Your task to perform on an android device: Add "usb-b" to the cart on newegg, then select checkout. Image 0: 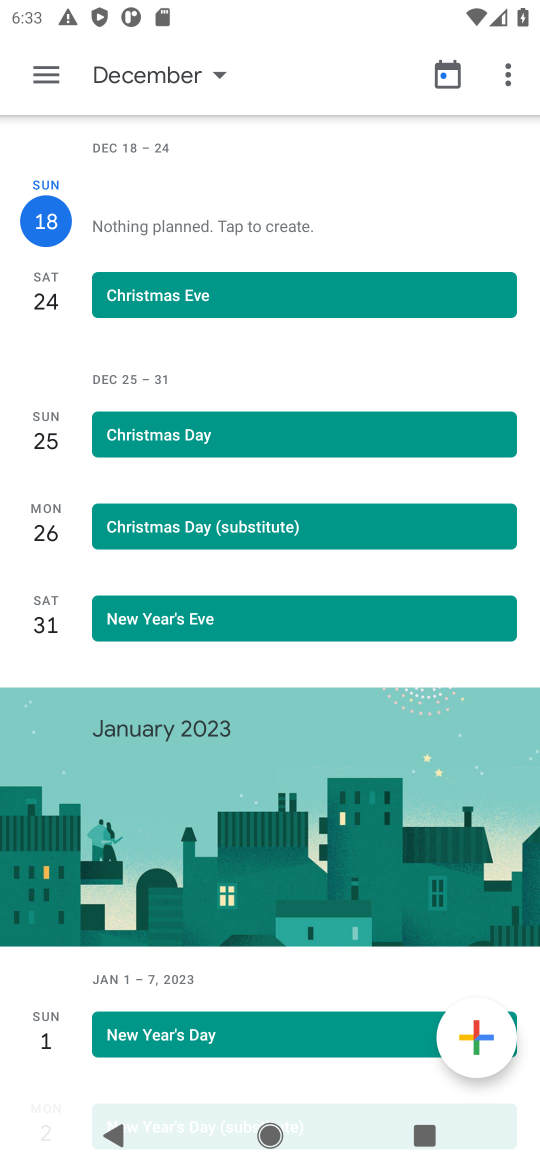
Step 0: press home button
Your task to perform on an android device: Add "usb-b" to the cart on newegg, then select checkout. Image 1: 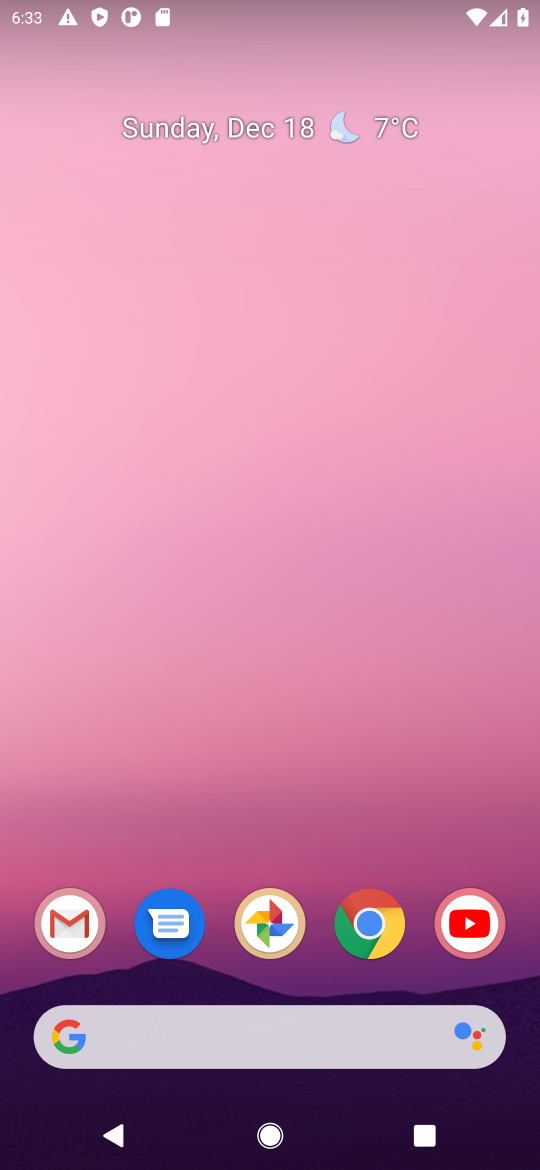
Step 1: click (106, 1031)
Your task to perform on an android device: Add "usb-b" to the cart on newegg, then select checkout. Image 2: 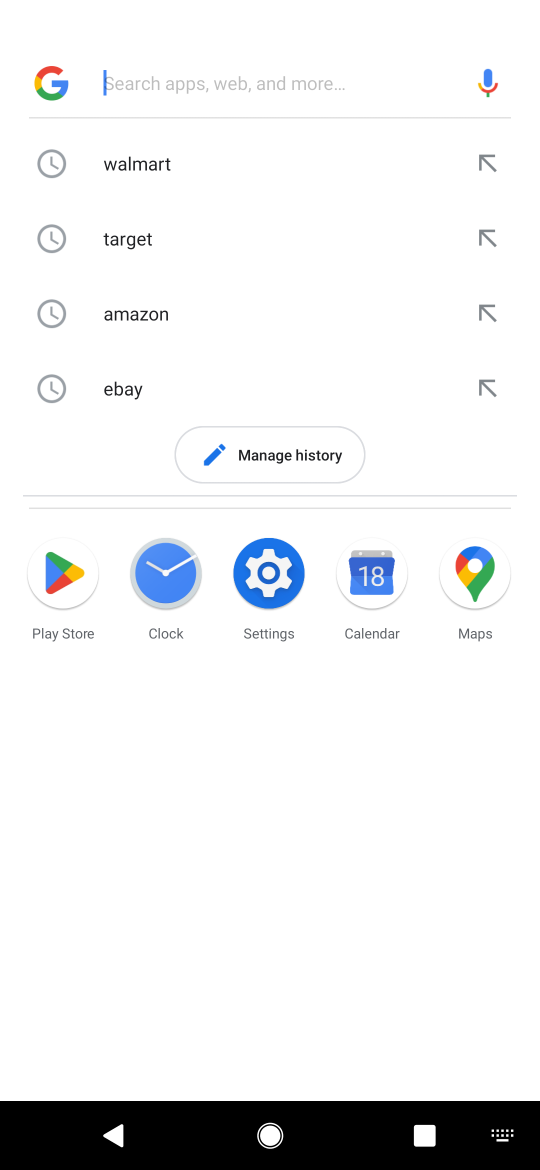
Step 2: type "newegg"
Your task to perform on an android device: Add "usb-b" to the cart on newegg, then select checkout. Image 3: 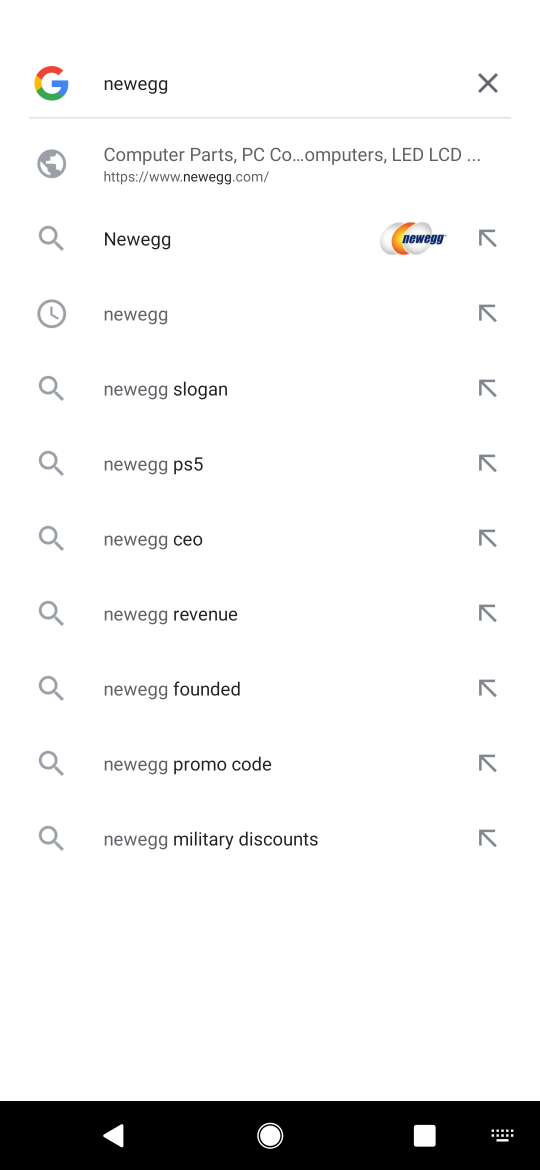
Step 3: press enter
Your task to perform on an android device: Add "usb-b" to the cart on newegg, then select checkout. Image 4: 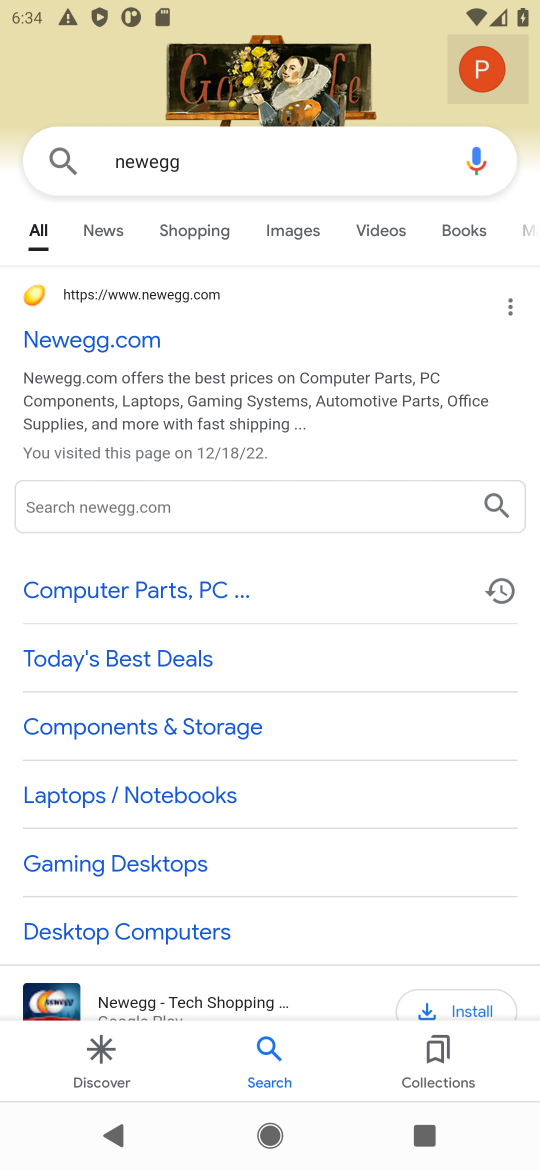
Step 4: click (88, 337)
Your task to perform on an android device: Add "usb-b" to the cart on newegg, then select checkout. Image 5: 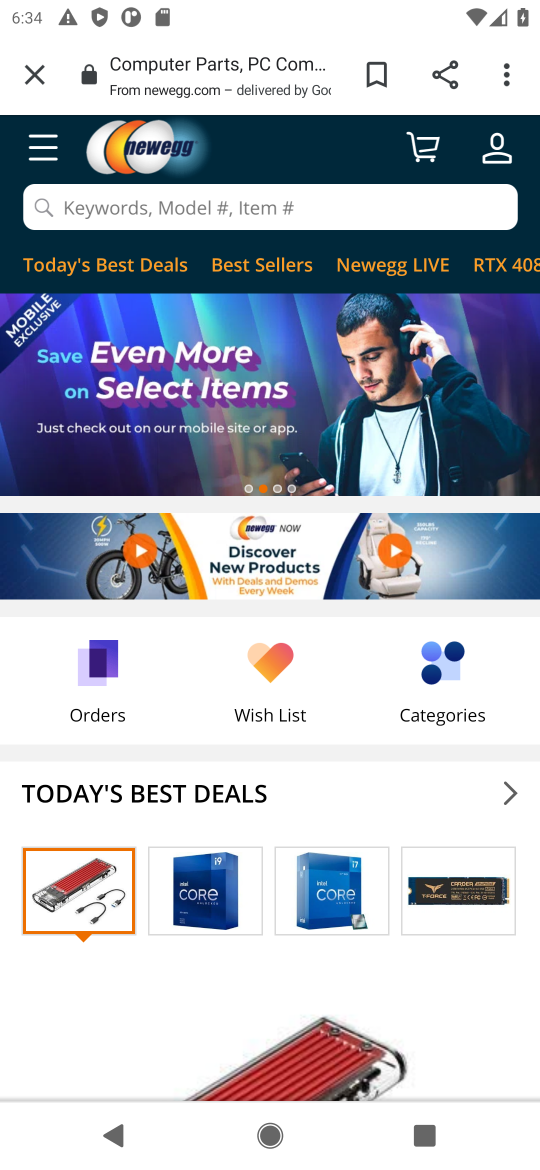
Step 5: click (110, 207)
Your task to perform on an android device: Add "usb-b" to the cart on newegg, then select checkout. Image 6: 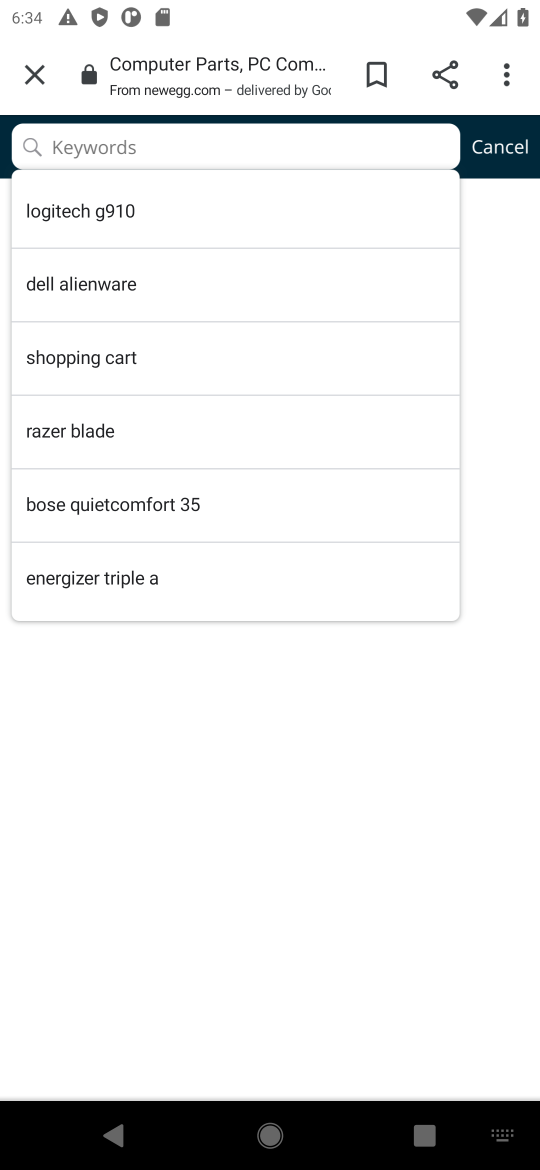
Step 6: press enter
Your task to perform on an android device: Add "usb-b" to the cart on newegg, then select checkout. Image 7: 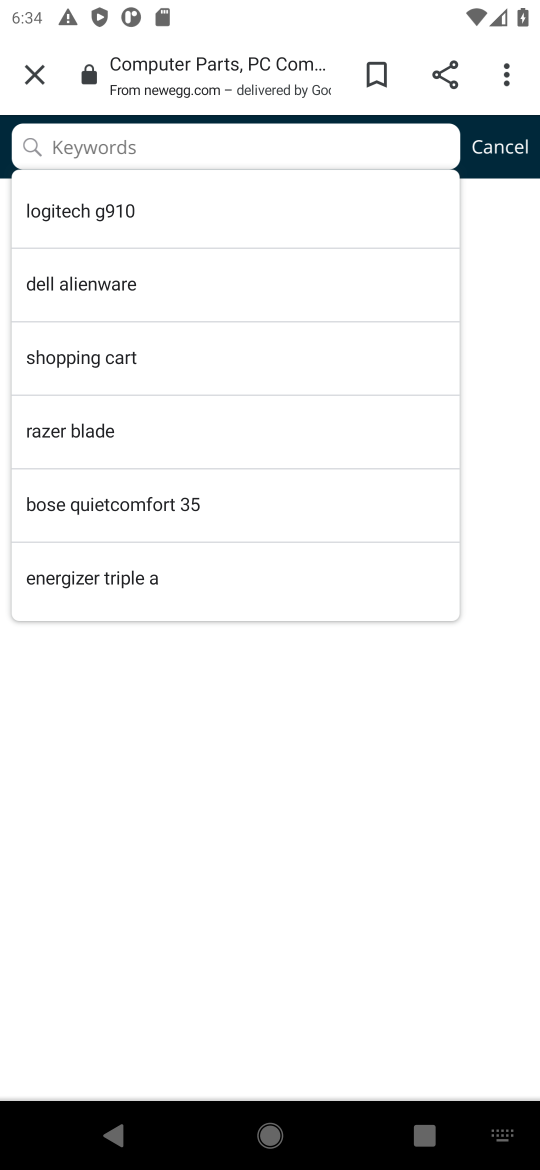
Step 7: type "usb-b"
Your task to perform on an android device: Add "usb-b" to the cart on newegg, then select checkout. Image 8: 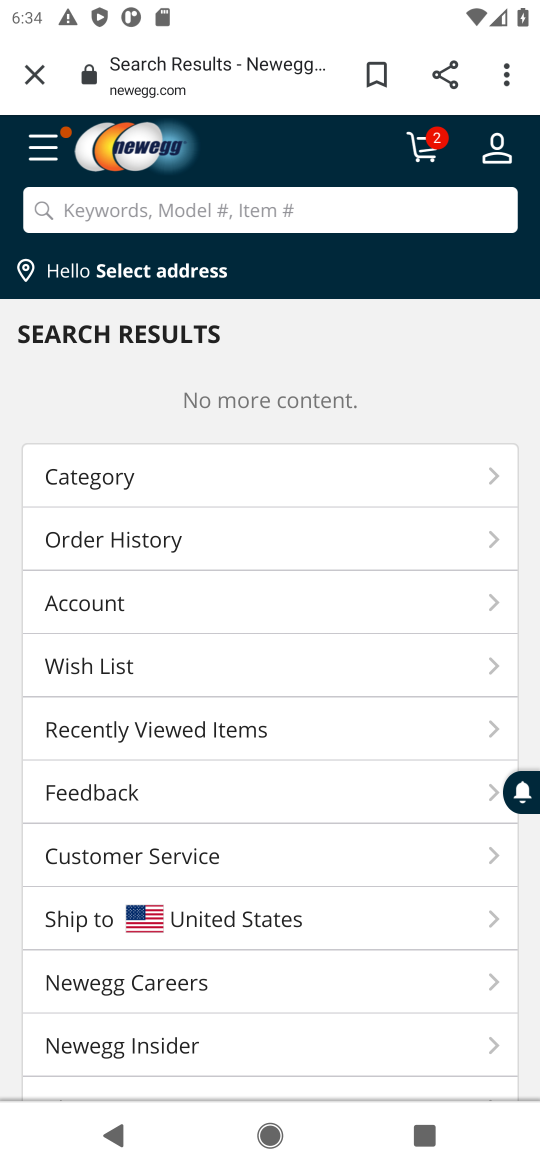
Step 8: drag from (338, 825) to (358, 332)
Your task to perform on an android device: Add "usb-b" to the cart on newegg, then select checkout. Image 9: 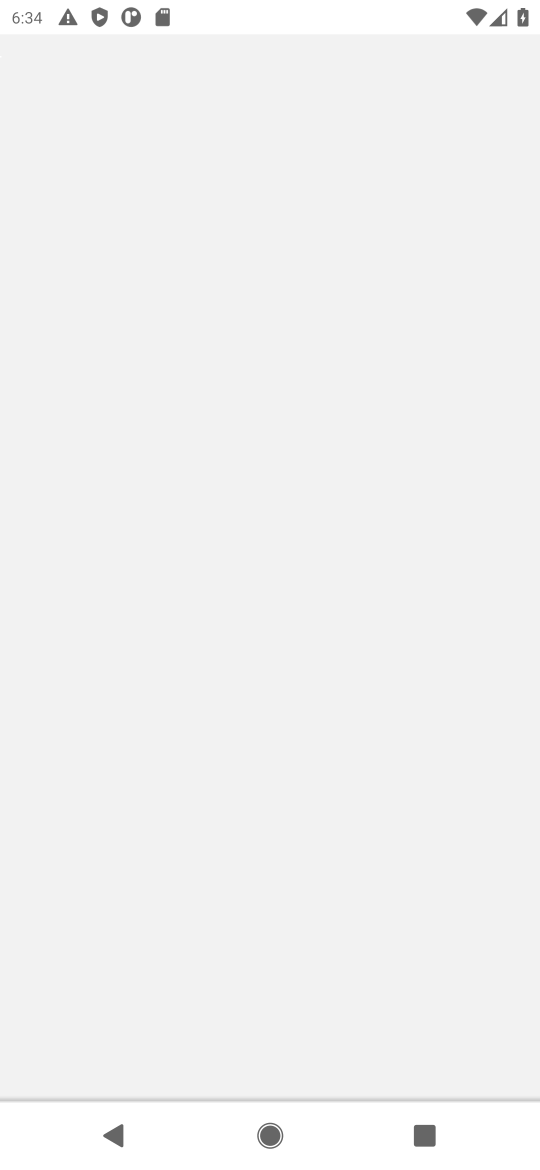
Step 9: drag from (357, 255) to (321, 1023)
Your task to perform on an android device: Add "usb-b" to the cart on newegg, then select checkout. Image 10: 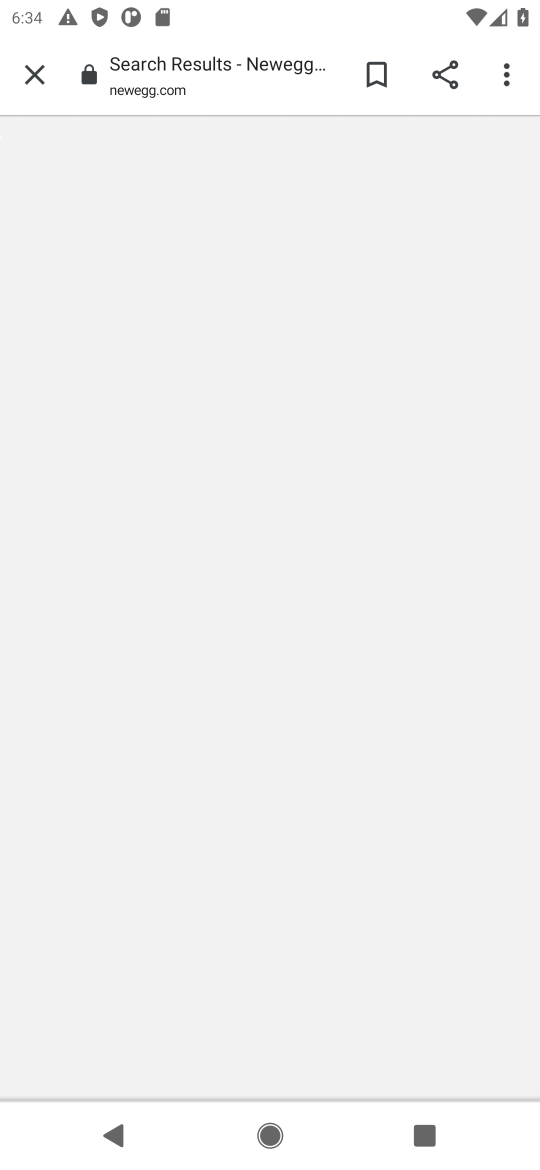
Step 10: press back button
Your task to perform on an android device: Add "usb-b" to the cart on newegg, then select checkout. Image 11: 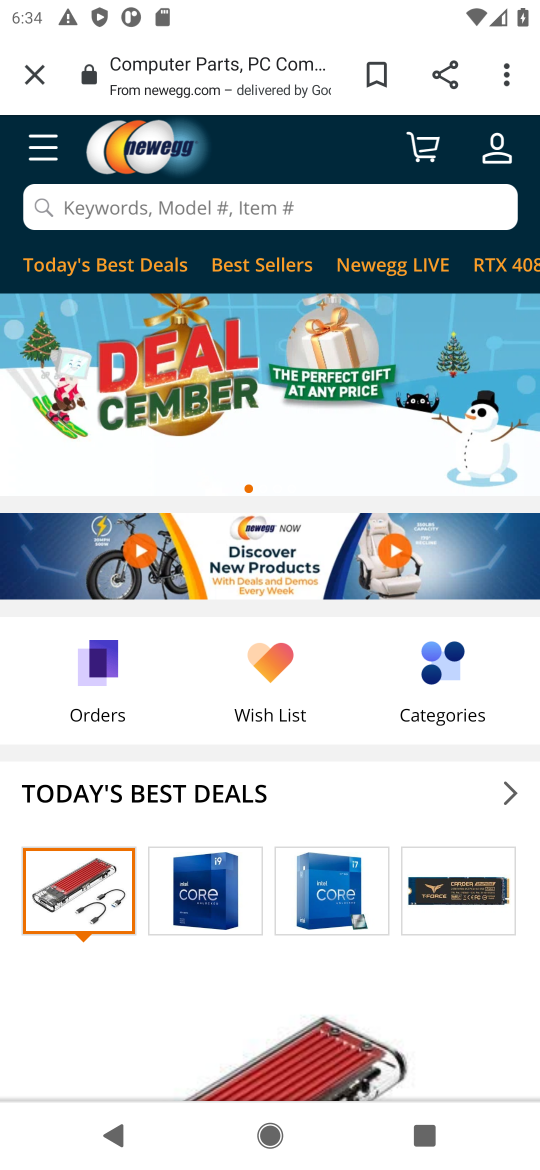
Step 11: click (179, 201)
Your task to perform on an android device: Add "usb-b" to the cart on newegg, then select checkout. Image 12: 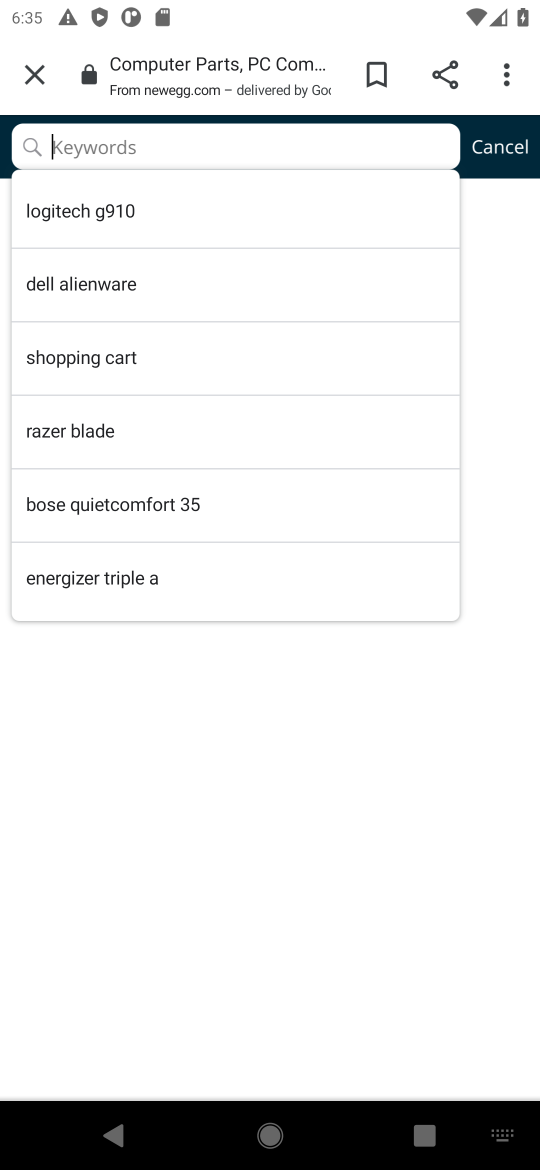
Step 12: type "usb-b"
Your task to perform on an android device: Add "usb-b" to the cart on newegg, then select checkout. Image 13: 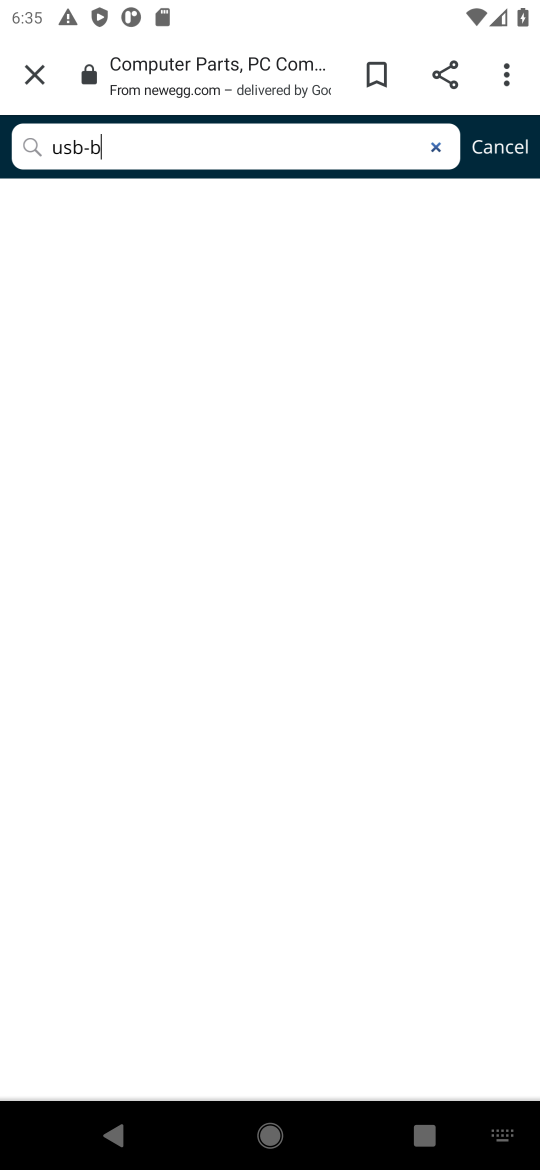
Step 13: press enter
Your task to perform on an android device: Add "usb-b" to the cart on newegg, then select checkout. Image 14: 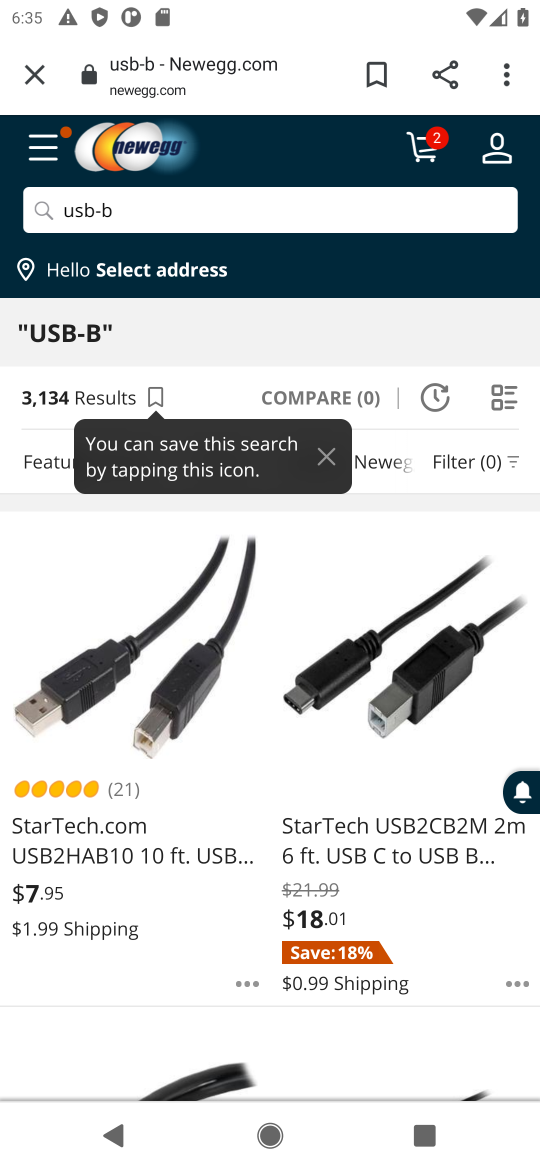
Step 14: task complete